Your task to perform on an android device: Go to internet settings Image 0: 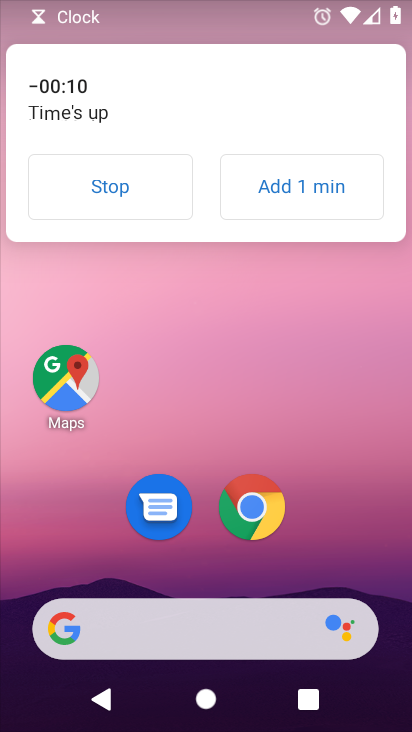
Step 0: click (127, 188)
Your task to perform on an android device: Go to internet settings Image 1: 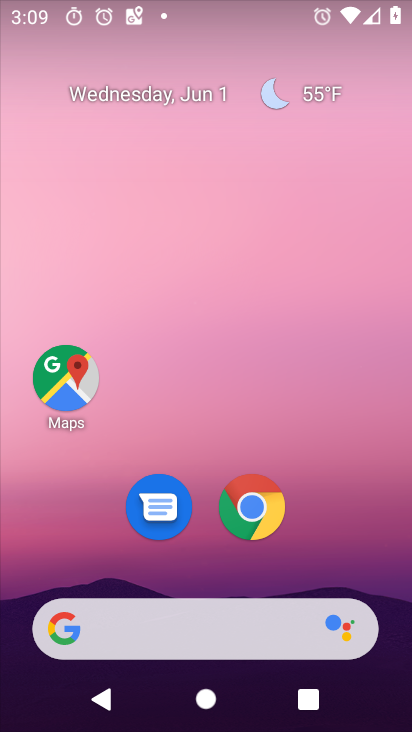
Step 1: drag from (379, 583) to (288, 3)
Your task to perform on an android device: Go to internet settings Image 2: 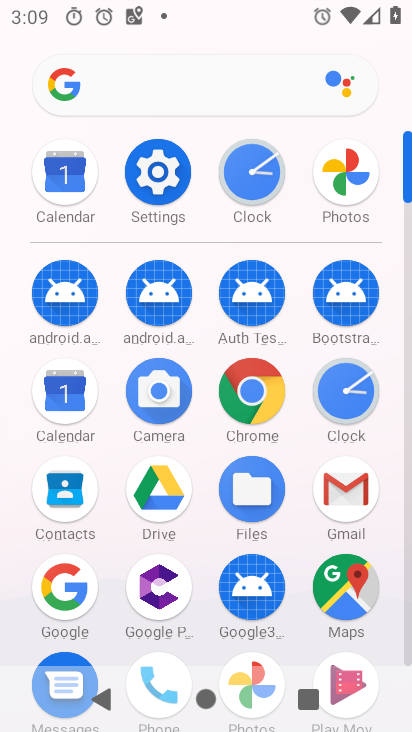
Step 2: click (165, 171)
Your task to perform on an android device: Go to internet settings Image 3: 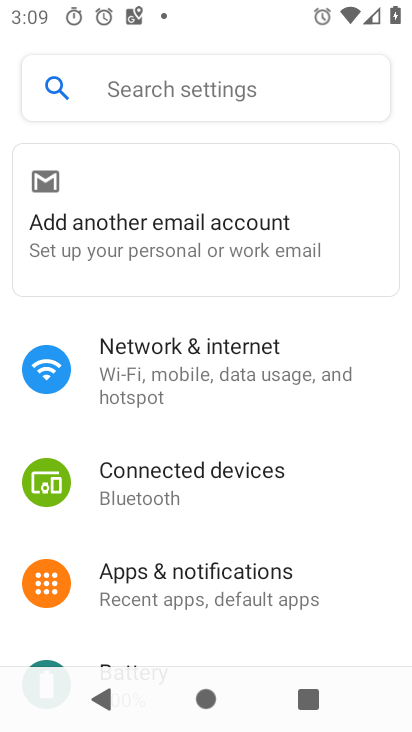
Step 3: click (163, 375)
Your task to perform on an android device: Go to internet settings Image 4: 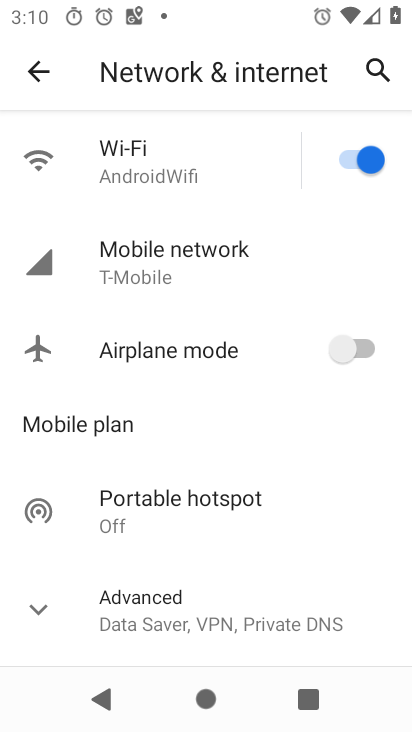
Step 4: task complete